Your task to perform on an android device: turn on the 12-hour format for clock Image 0: 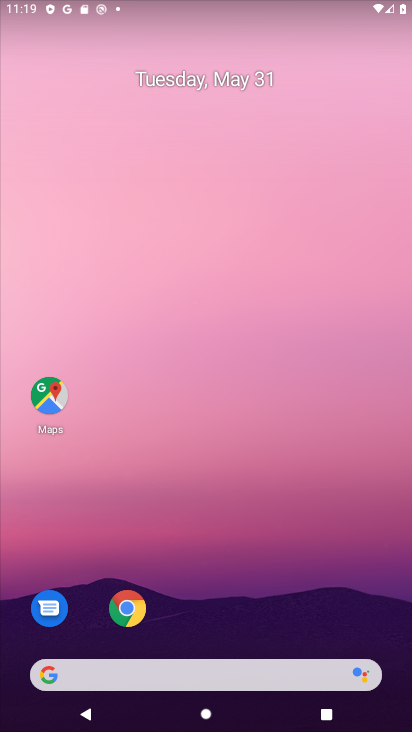
Step 0: drag from (367, 574) to (274, 0)
Your task to perform on an android device: turn on the 12-hour format for clock Image 1: 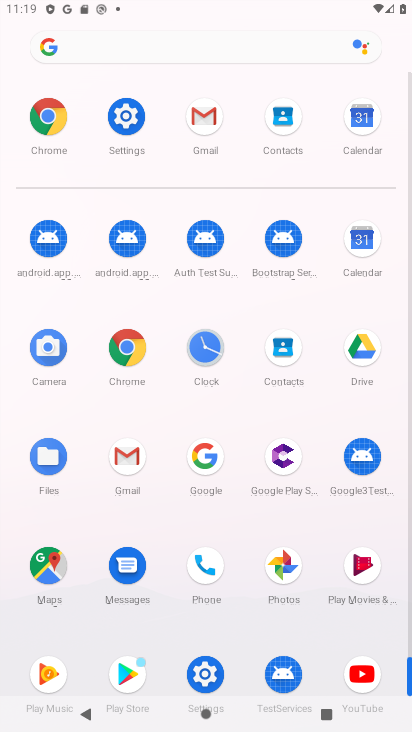
Step 1: click (206, 360)
Your task to perform on an android device: turn on the 12-hour format for clock Image 2: 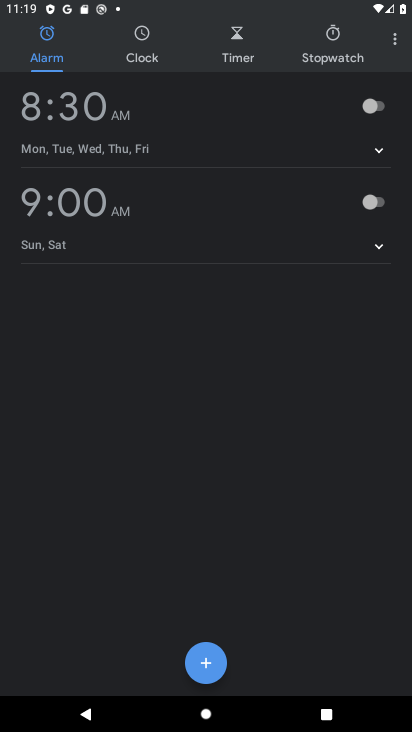
Step 2: click (400, 30)
Your task to perform on an android device: turn on the 12-hour format for clock Image 3: 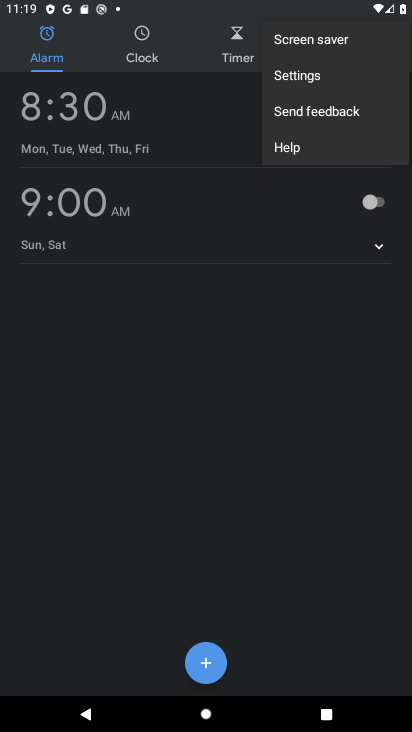
Step 3: click (313, 87)
Your task to perform on an android device: turn on the 12-hour format for clock Image 4: 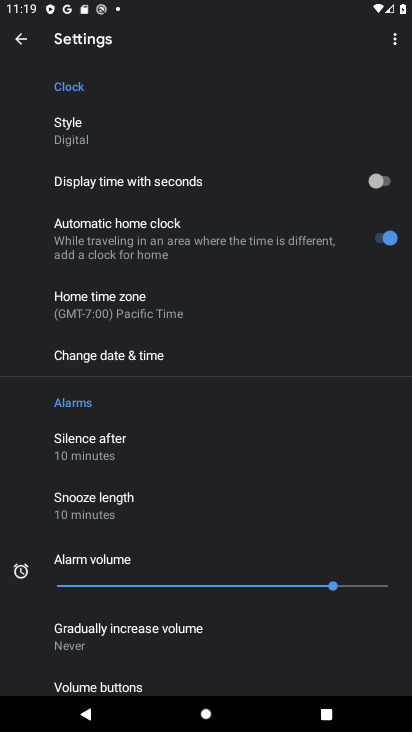
Step 4: click (125, 348)
Your task to perform on an android device: turn on the 12-hour format for clock Image 5: 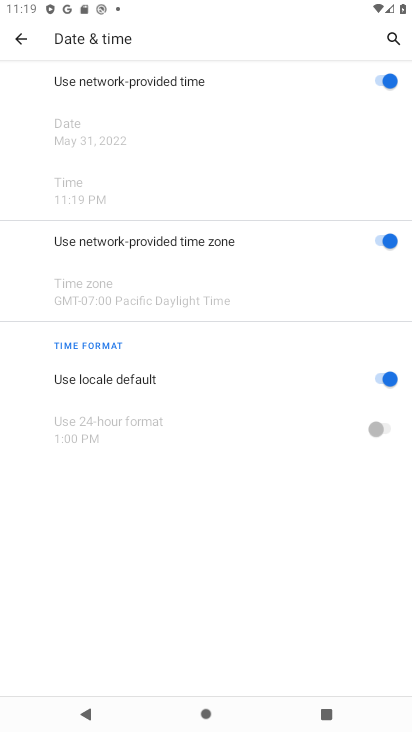
Step 5: click (198, 384)
Your task to perform on an android device: turn on the 12-hour format for clock Image 6: 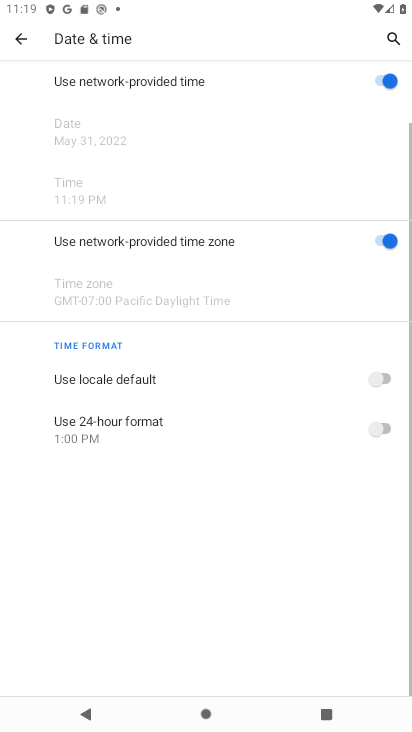
Step 6: click (200, 425)
Your task to perform on an android device: turn on the 12-hour format for clock Image 7: 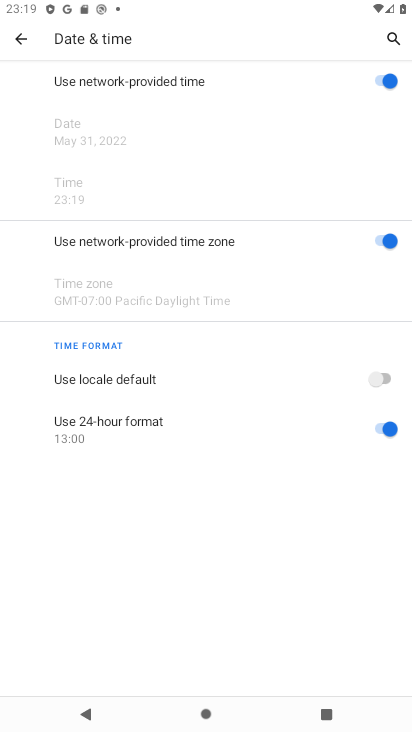
Step 7: task complete